Your task to perform on an android device: snooze an email in the gmail app Image 0: 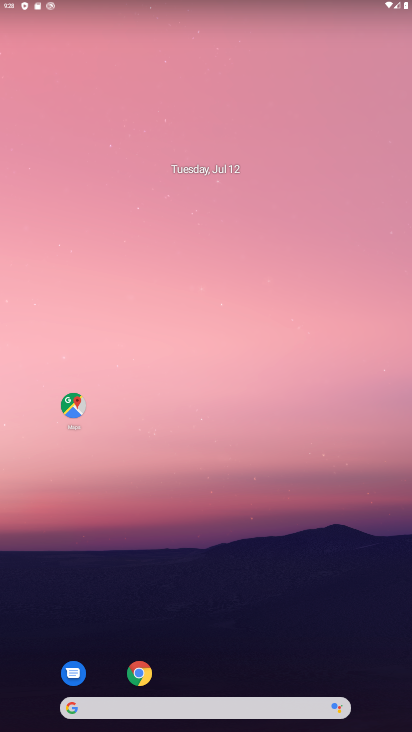
Step 0: drag from (379, 686) to (295, 157)
Your task to perform on an android device: snooze an email in the gmail app Image 1: 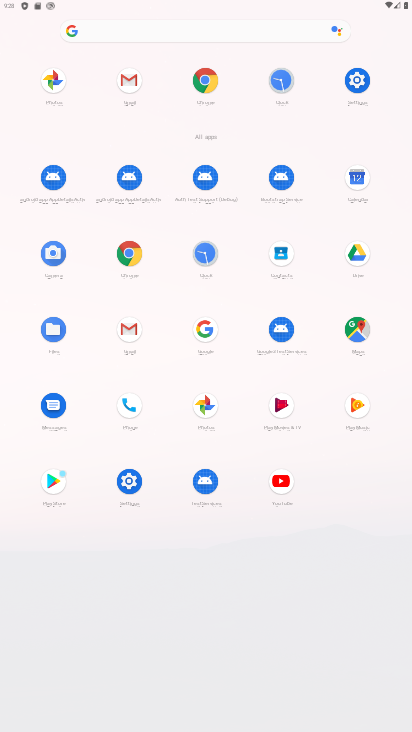
Step 1: click (134, 334)
Your task to perform on an android device: snooze an email in the gmail app Image 2: 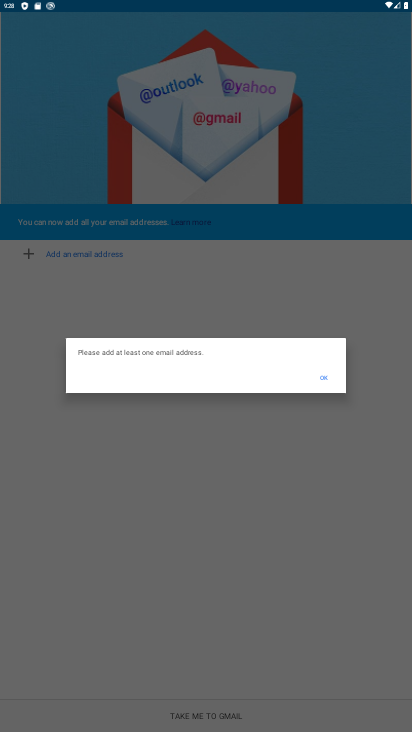
Step 2: click (29, 230)
Your task to perform on an android device: snooze an email in the gmail app Image 3: 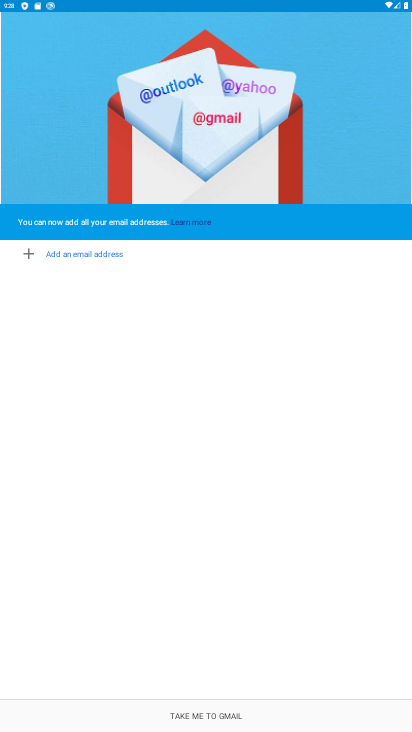
Step 3: click (164, 351)
Your task to perform on an android device: snooze an email in the gmail app Image 4: 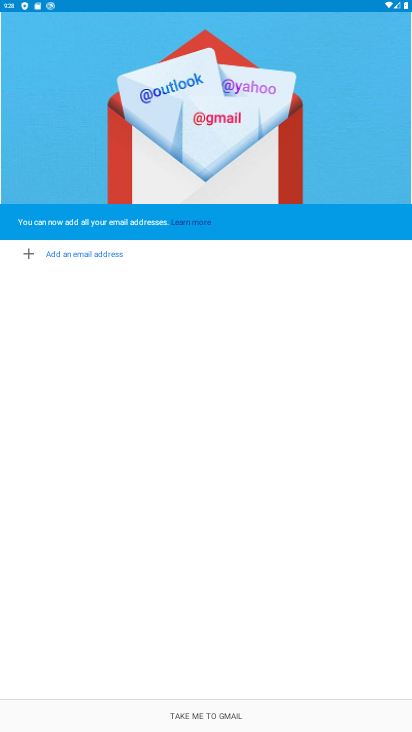
Step 4: click (205, 711)
Your task to perform on an android device: snooze an email in the gmail app Image 5: 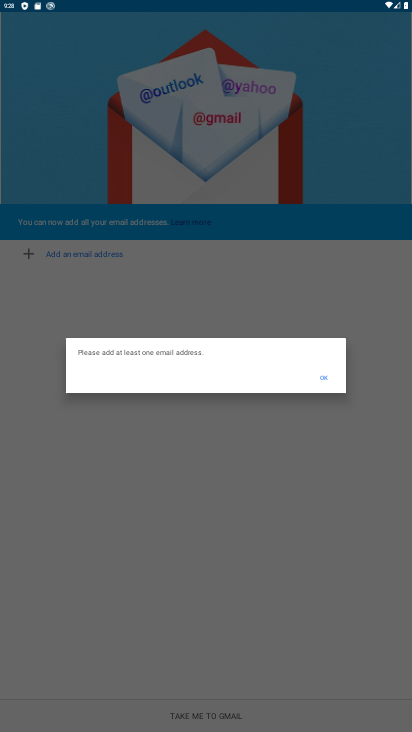
Step 5: click (238, 415)
Your task to perform on an android device: snooze an email in the gmail app Image 6: 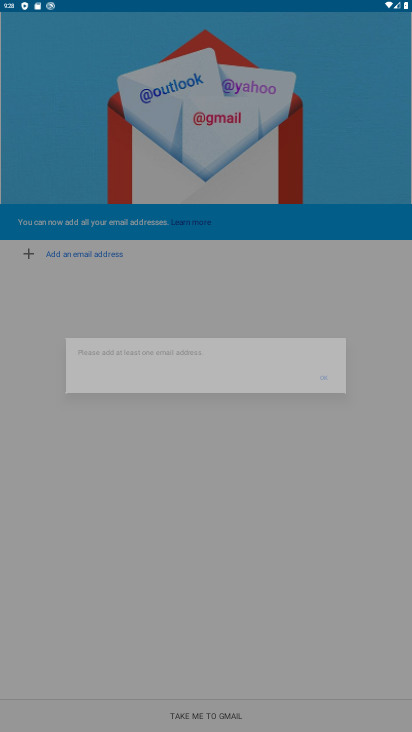
Step 6: click (238, 415)
Your task to perform on an android device: snooze an email in the gmail app Image 7: 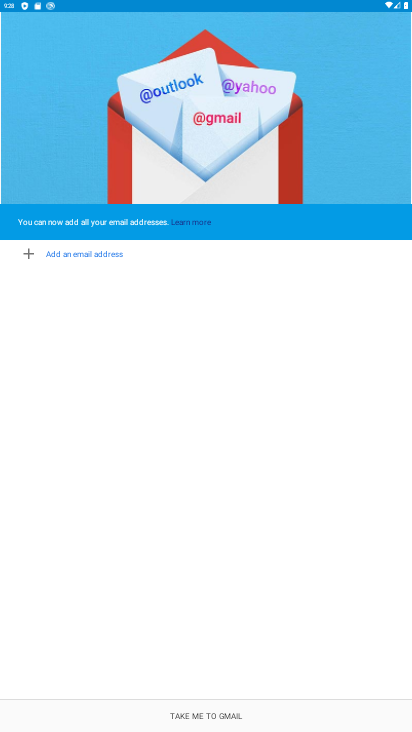
Step 7: press back button
Your task to perform on an android device: snooze an email in the gmail app Image 8: 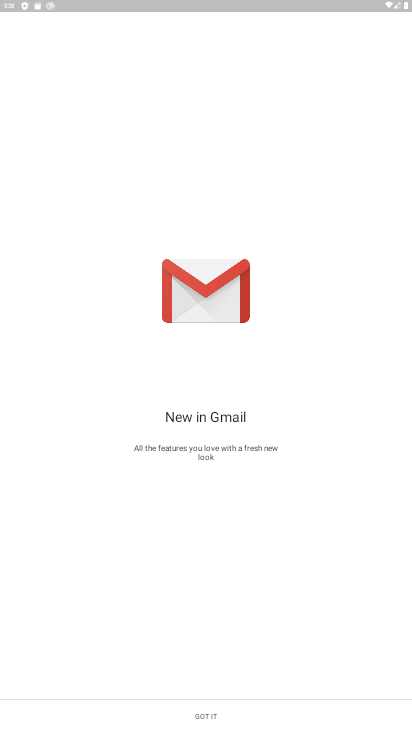
Step 8: press back button
Your task to perform on an android device: snooze an email in the gmail app Image 9: 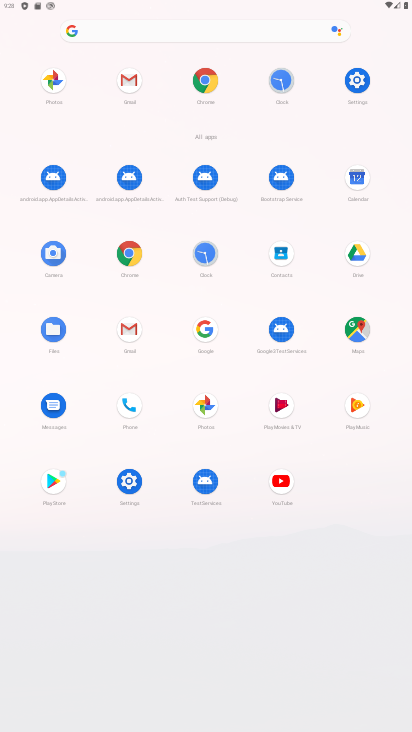
Step 9: click (125, 321)
Your task to perform on an android device: snooze an email in the gmail app Image 10: 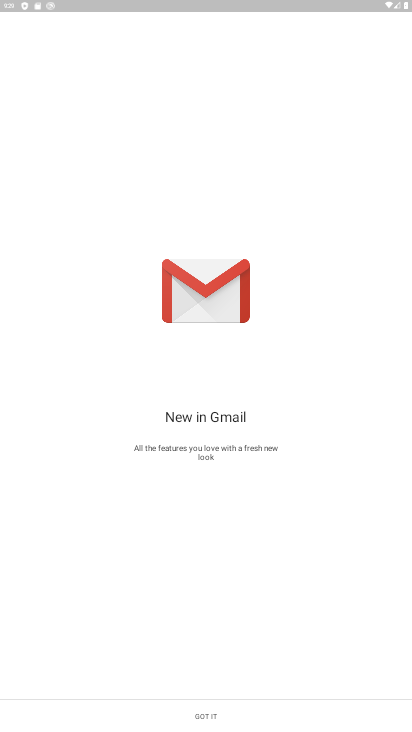
Step 10: click (198, 710)
Your task to perform on an android device: snooze an email in the gmail app Image 11: 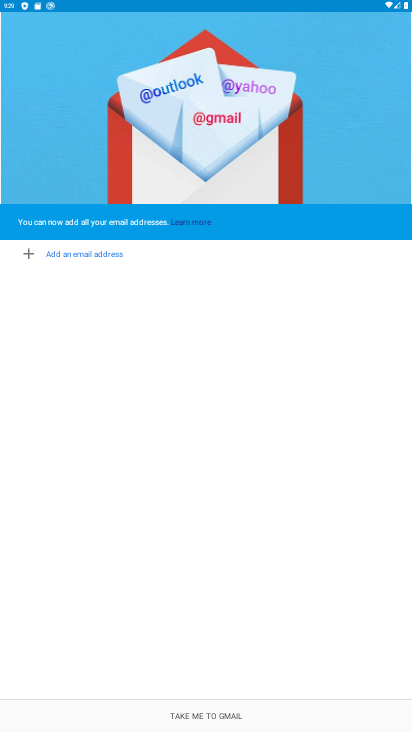
Step 11: click (215, 712)
Your task to perform on an android device: snooze an email in the gmail app Image 12: 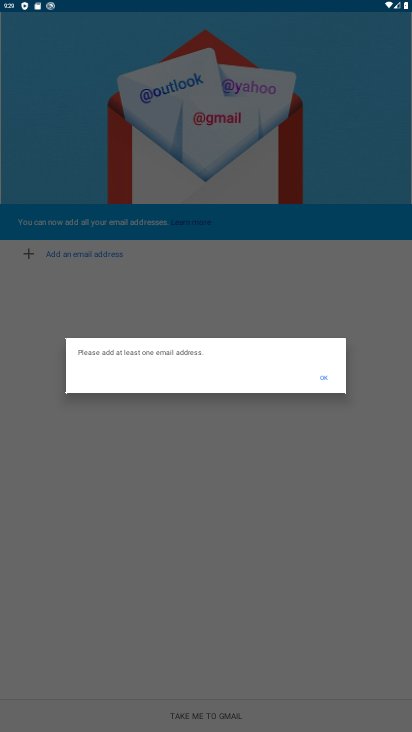
Step 12: click (325, 375)
Your task to perform on an android device: snooze an email in the gmail app Image 13: 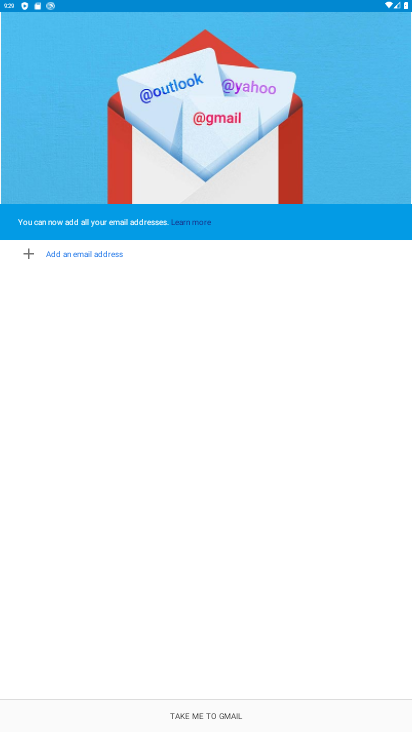
Step 13: click (31, 249)
Your task to perform on an android device: snooze an email in the gmail app Image 14: 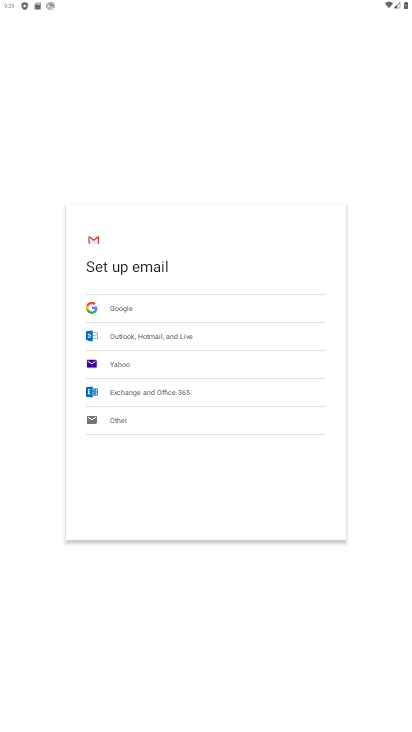
Step 14: task complete